Your task to perform on an android device: all mails in gmail Image 0: 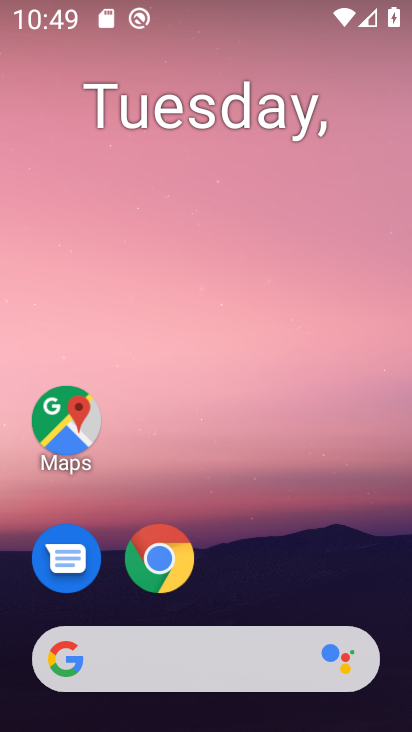
Step 0: drag from (358, 575) to (348, 94)
Your task to perform on an android device: all mails in gmail Image 1: 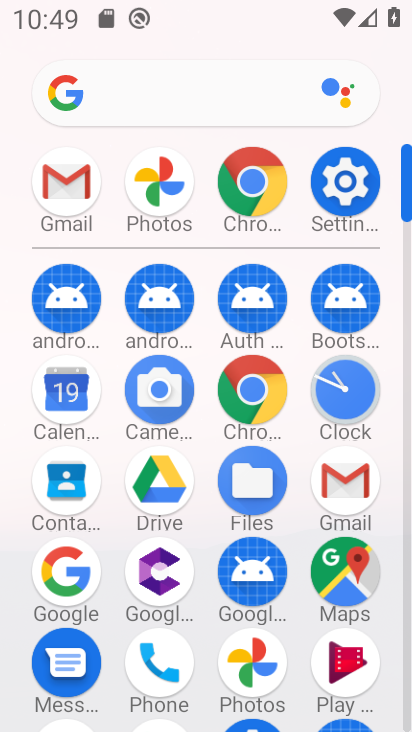
Step 1: click (352, 482)
Your task to perform on an android device: all mails in gmail Image 2: 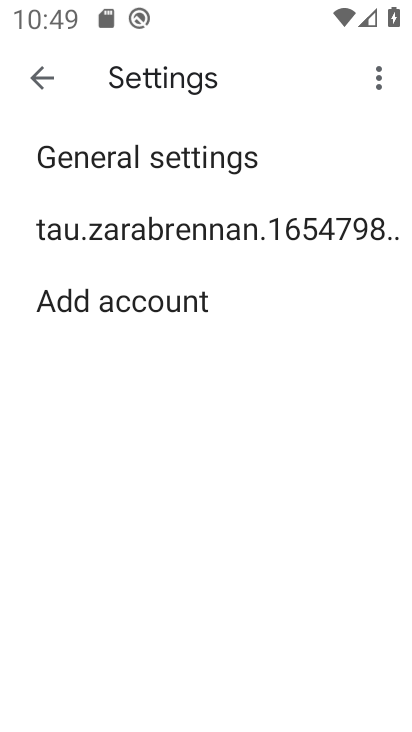
Step 2: press back button
Your task to perform on an android device: all mails in gmail Image 3: 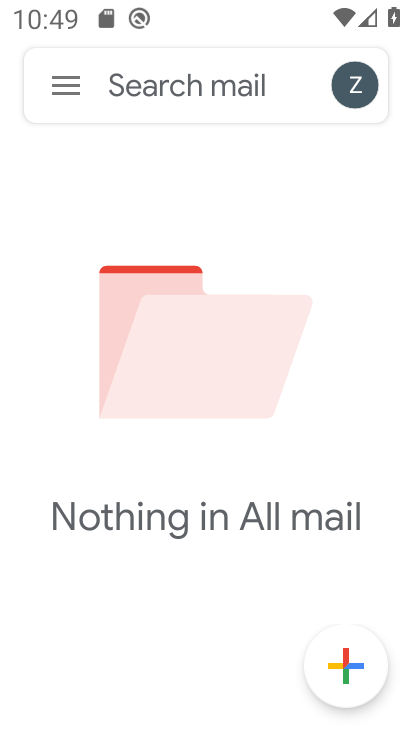
Step 3: click (73, 82)
Your task to perform on an android device: all mails in gmail Image 4: 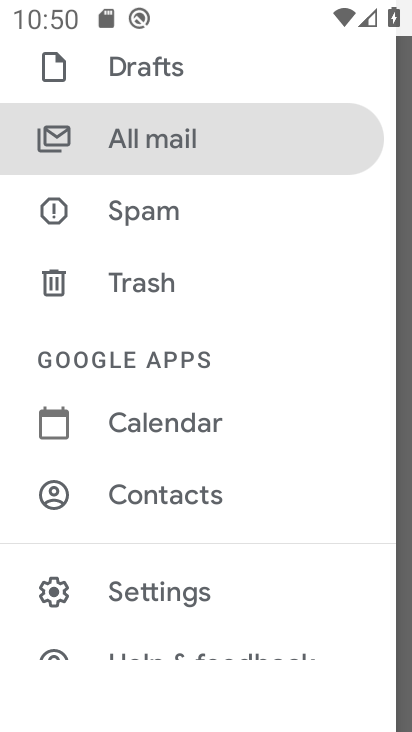
Step 4: click (197, 144)
Your task to perform on an android device: all mails in gmail Image 5: 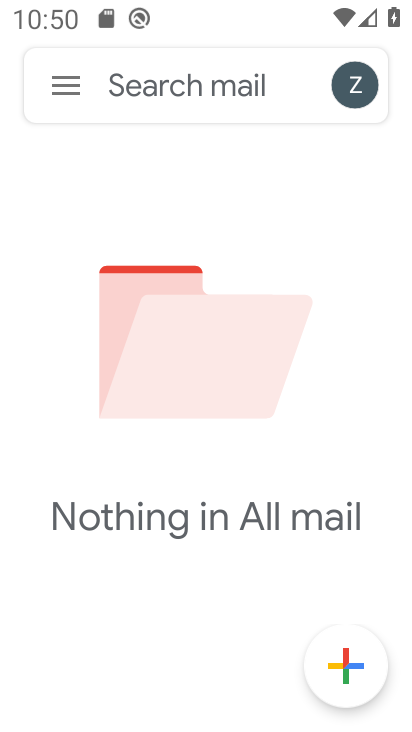
Step 5: task complete